Your task to perform on an android device: delete the emails in spam in the gmail app Image 0: 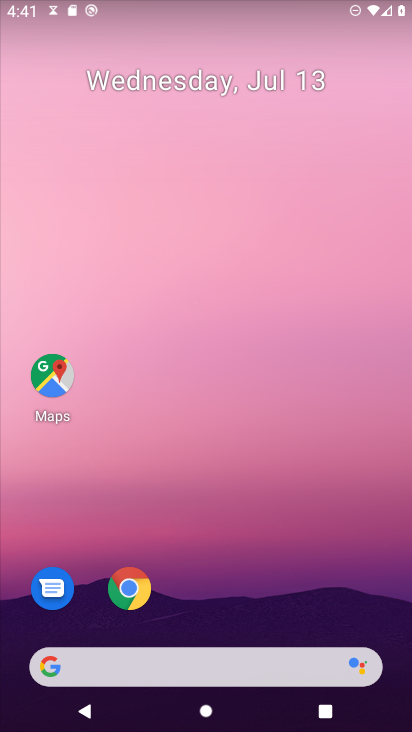
Step 0: drag from (238, 615) to (108, 160)
Your task to perform on an android device: delete the emails in spam in the gmail app Image 1: 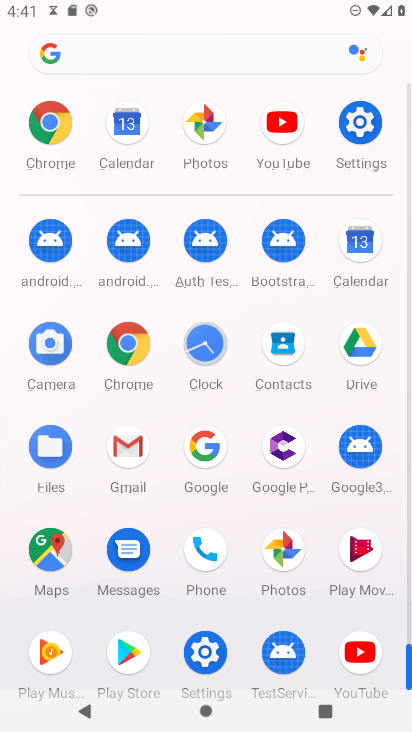
Step 1: click (124, 430)
Your task to perform on an android device: delete the emails in spam in the gmail app Image 2: 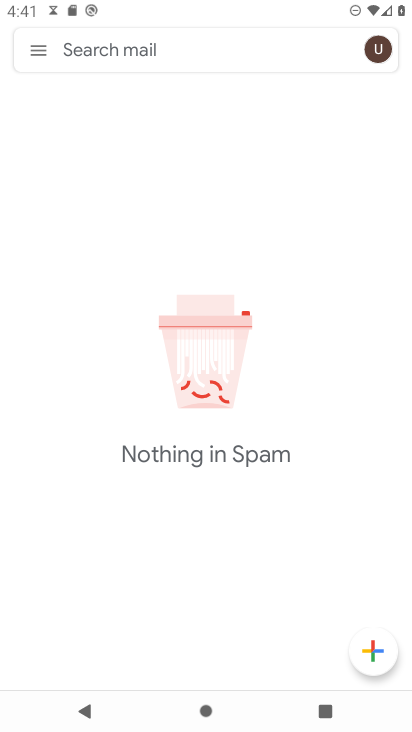
Step 2: click (36, 51)
Your task to perform on an android device: delete the emails in spam in the gmail app Image 3: 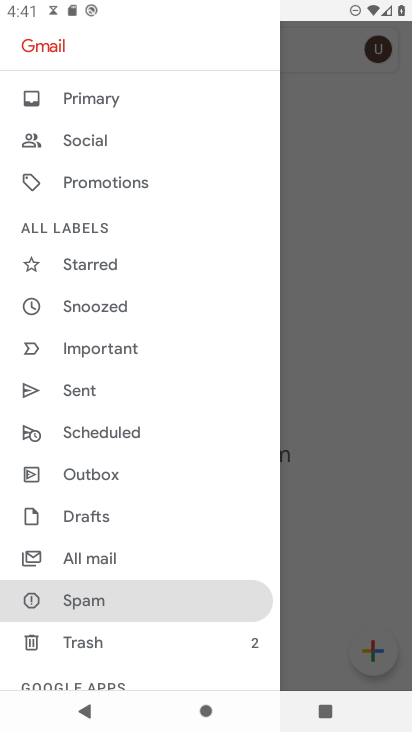
Step 3: click (89, 591)
Your task to perform on an android device: delete the emails in spam in the gmail app Image 4: 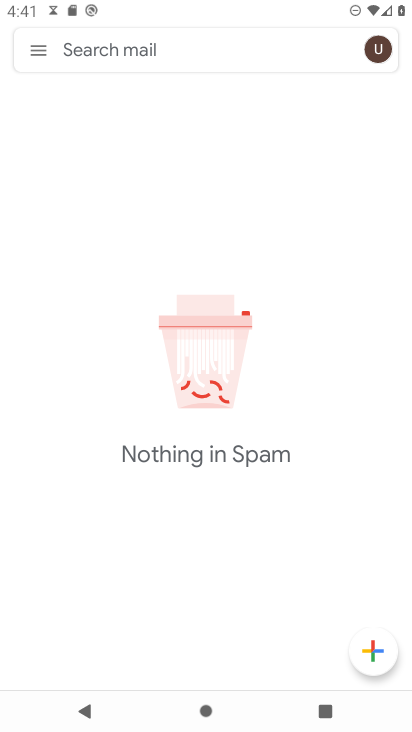
Step 4: task complete